Your task to perform on an android device: open a bookmark in the chrome app Image 0: 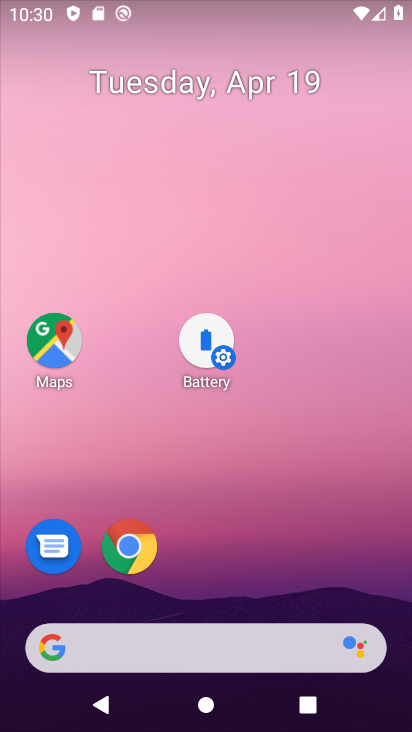
Step 0: click (137, 549)
Your task to perform on an android device: open a bookmark in the chrome app Image 1: 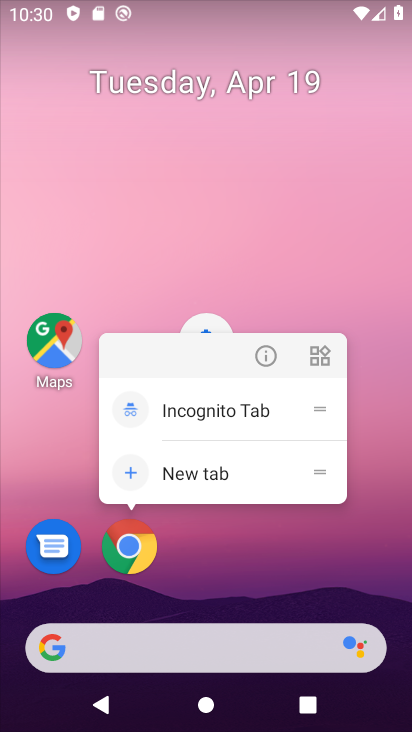
Step 1: click (114, 539)
Your task to perform on an android device: open a bookmark in the chrome app Image 2: 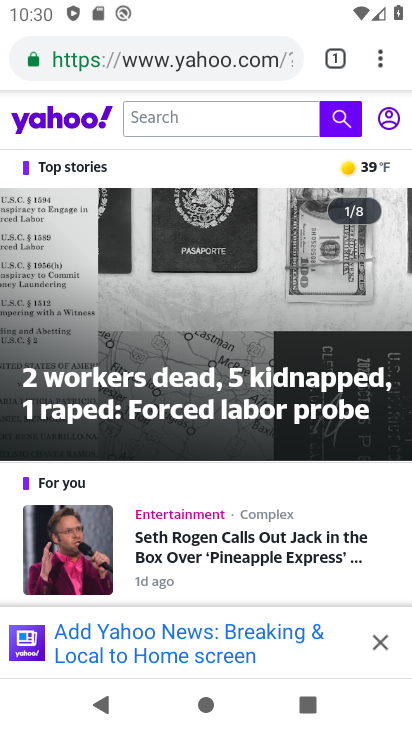
Step 2: click (386, 53)
Your task to perform on an android device: open a bookmark in the chrome app Image 3: 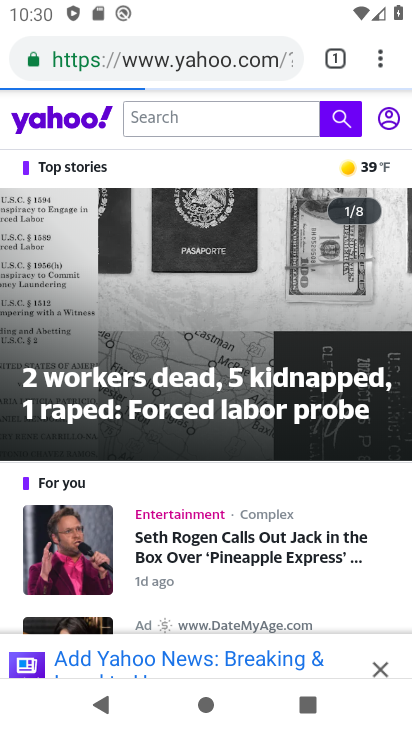
Step 3: click (380, 55)
Your task to perform on an android device: open a bookmark in the chrome app Image 4: 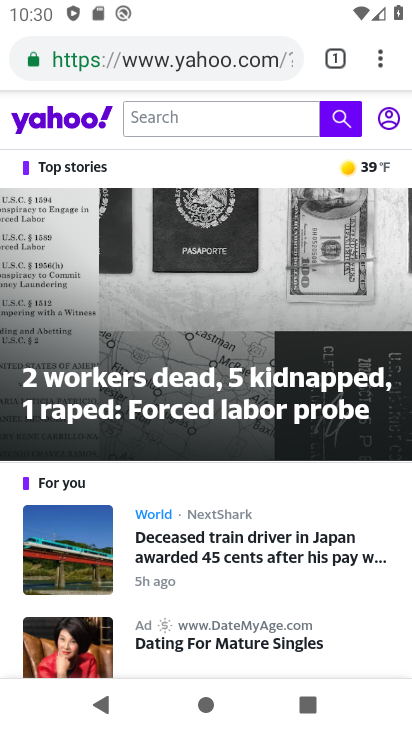
Step 4: click (384, 54)
Your task to perform on an android device: open a bookmark in the chrome app Image 5: 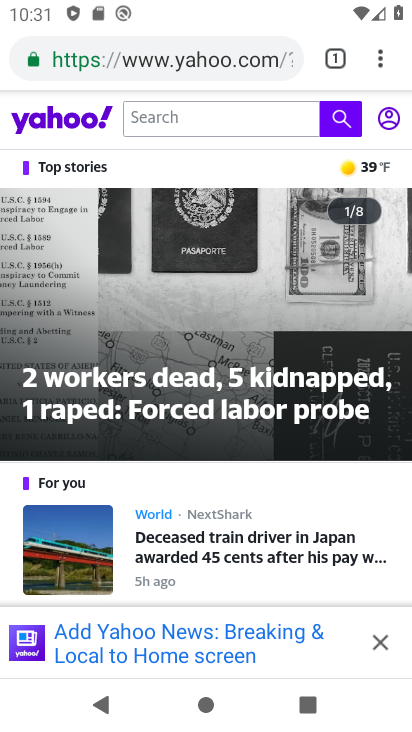
Step 5: task complete